Your task to perform on an android device: Open the Play Movies app and select the watchlist tab. Image 0: 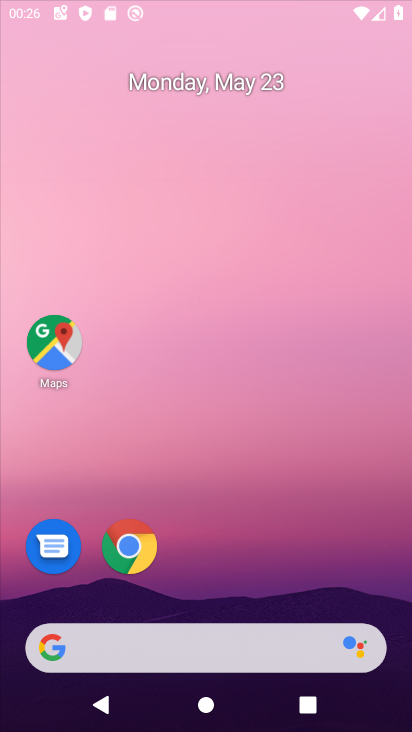
Step 0: drag from (333, 146) to (260, 54)
Your task to perform on an android device: Open the Play Movies app and select the watchlist tab. Image 1: 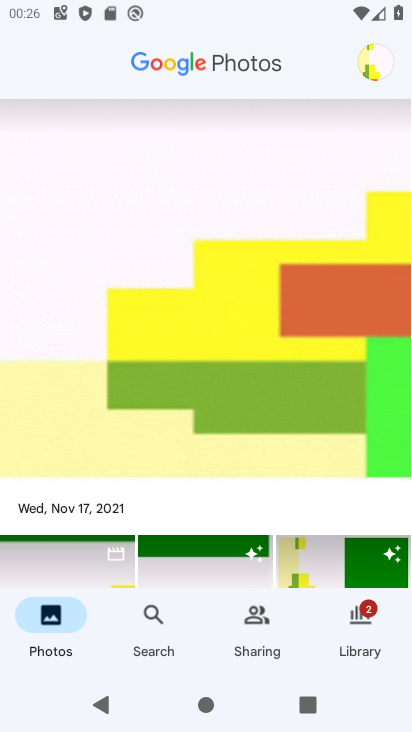
Step 1: press home button
Your task to perform on an android device: Open the Play Movies app and select the watchlist tab. Image 2: 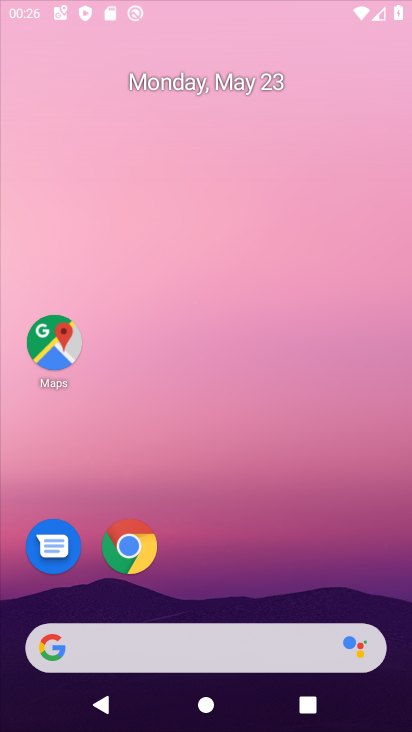
Step 2: drag from (218, 533) to (292, 47)
Your task to perform on an android device: Open the Play Movies app and select the watchlist tab. Image 3: 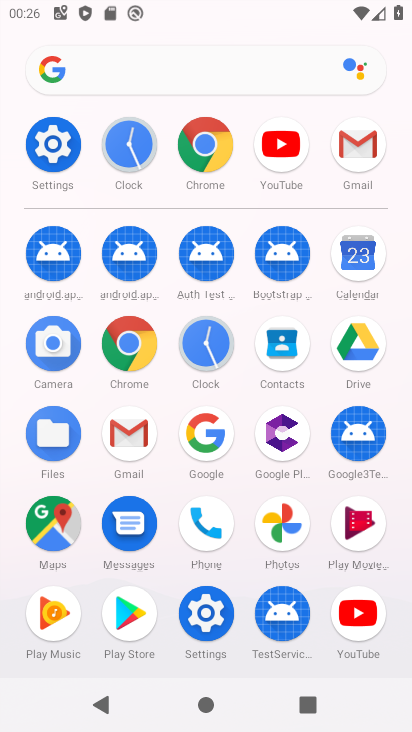
Step 3: click (353, 521)
Your task to perform on an android device: Open the Play Movies app and select the watchlist tab. Image 4: 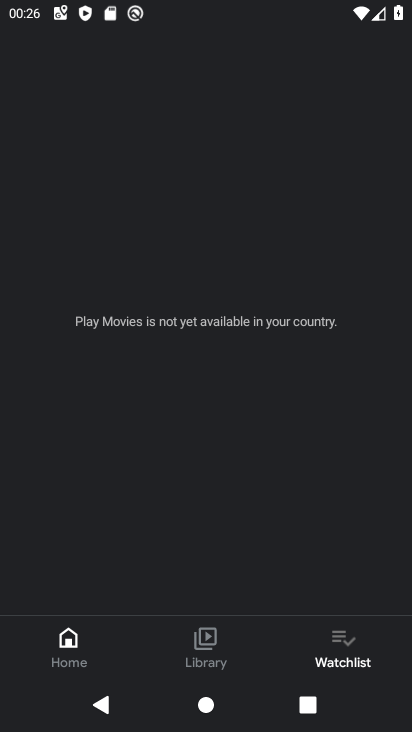
Step 4: drag from (170, 534) to (220, 95)
Your task to perform on an android device: Open the Play Movies app and select the watchlist tab. Image 5: 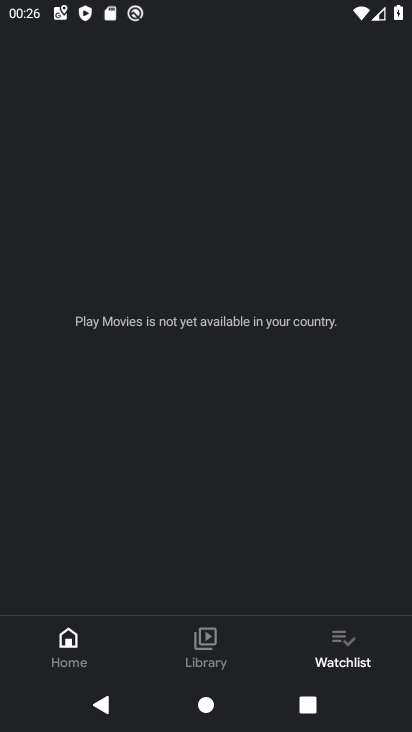
Step 5: click (353, 640)
Your task to perform on an android device: Open the Play Movies app and select the watchlist tab. Image 6: 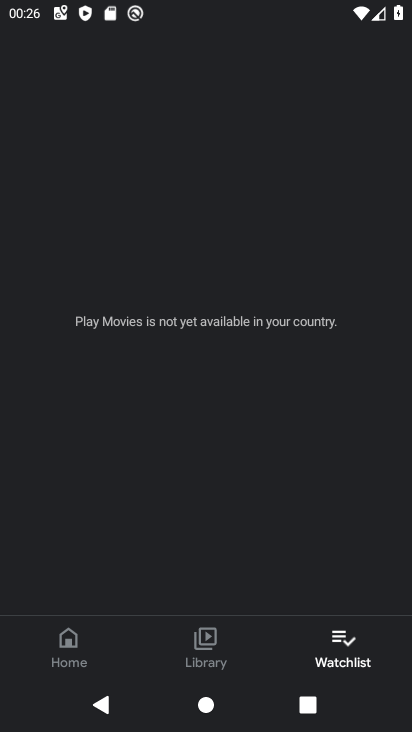
Step 6: task complete